Your task to perform on an android device: turn on notifications settings in the gmail app Image 0: 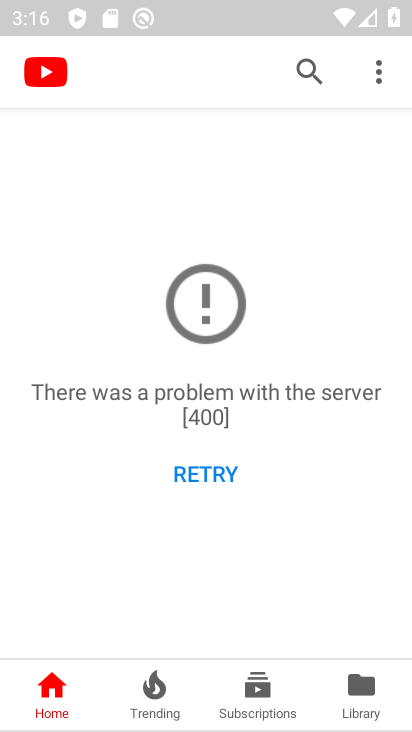
Step 0: press home button
Your task to perform on an android device: turn on notifications settings in the gmail app Image 1: 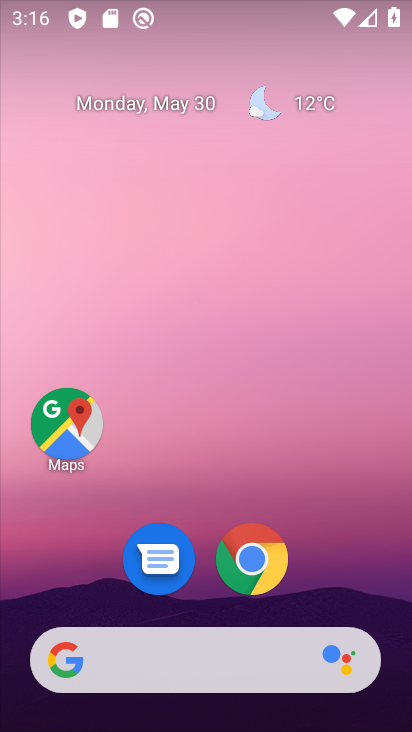
Step 1: drag from (211, 723) to (211, 29)
Your task to perform on an android device: turn on notifications settings in the gmail app Image 2: 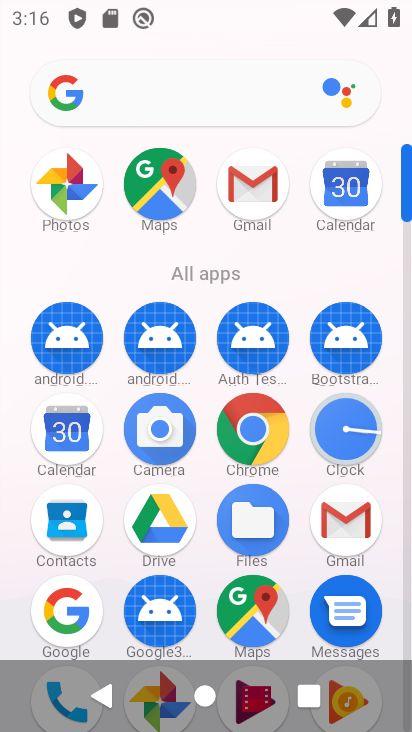
Step 2: click (360, 519)
Your task to perform on an android device: turn on notifications settings in the gmail app Image 3: 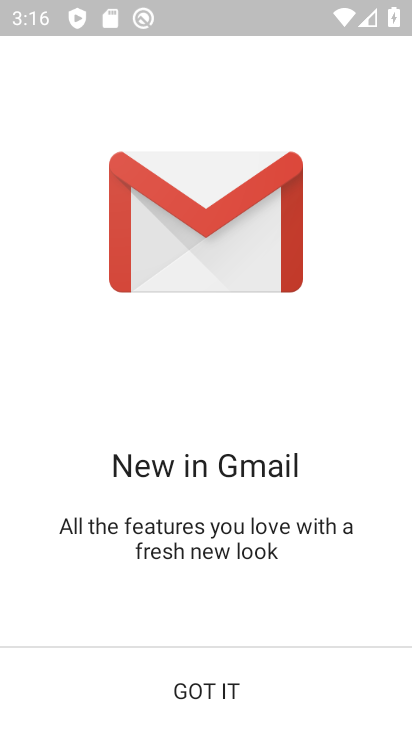
Step 3: click (217, 663)
Your task to perform on an android device: turn on notifications settings in the gmail app Image 4: 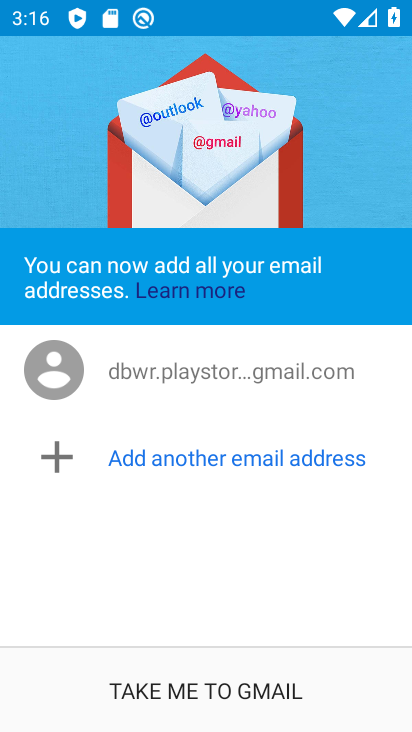
Step 4: click (210, 691)
Your task to perform on an android device: turn on notifications settings in the gmail app Image 5: 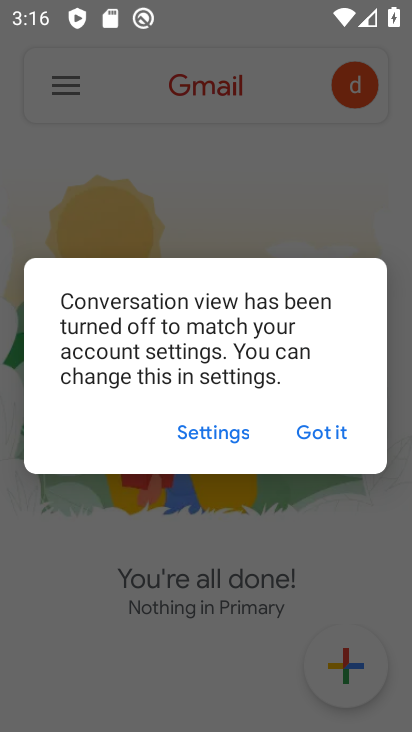
Step 5: click (317, 430)
Your task to perform on an android device: turn on notifications settings in the gmail app Image 6: 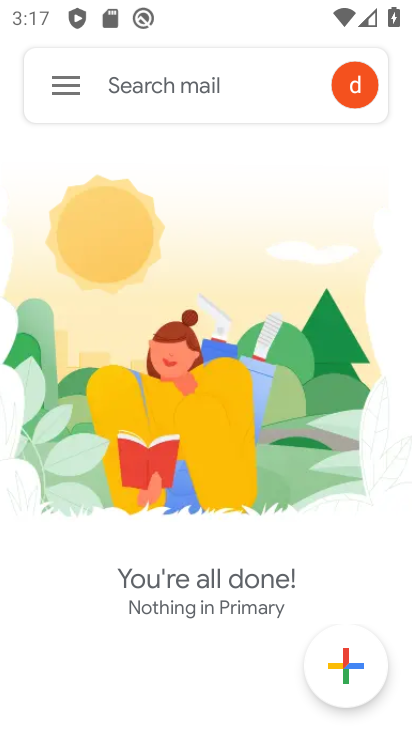
Step 6: click (61, 81)
Your task to perform on an android device: turn on notifications settings in the gmail app Image 7: 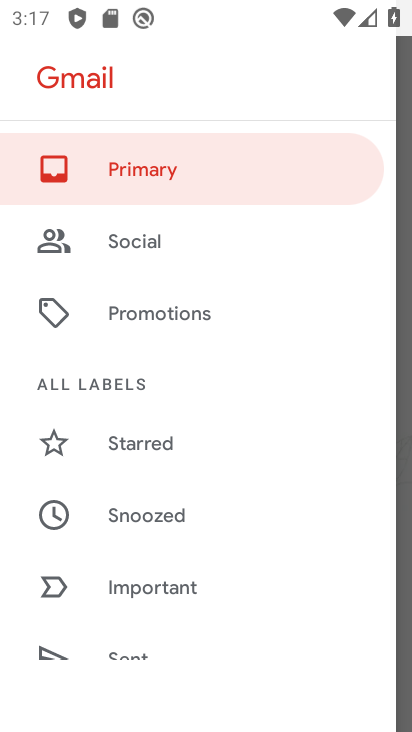
Step 7: drag from (194, 646) to (202, 277)
Your task to perform on an android device: turn on notifications settings in the gmail app Image 8: 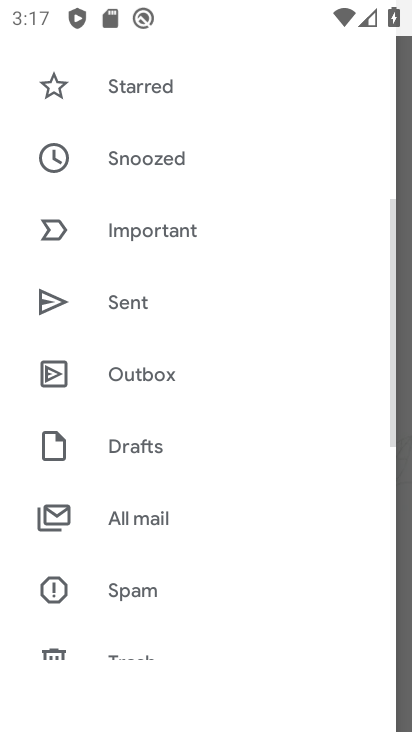
Step 8: drag from (172, 624) to (170, 154)
Your task to perform on an android device: turn on notifications settings in the gmail app Image 9: 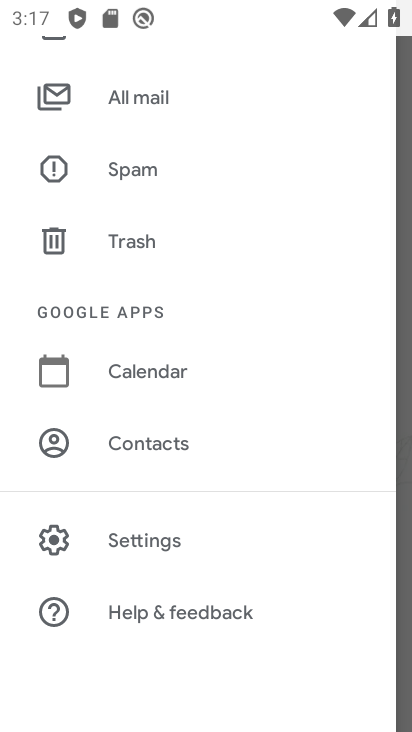
Step 9: click (154, 532)
Your task to perform on an android device: turn on notifications settings in the gmail app Image 10: 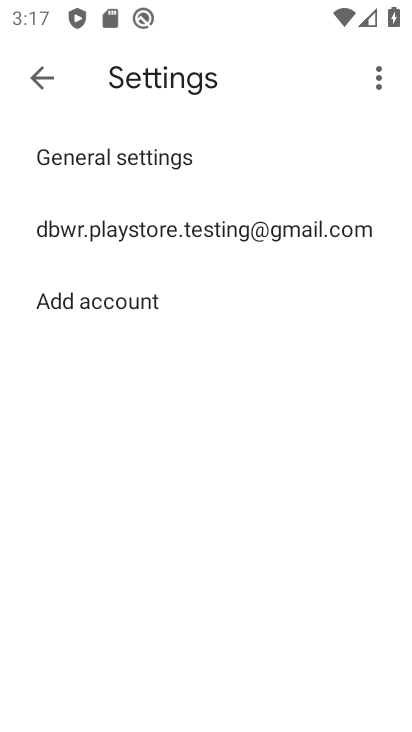
Step 10: click (183, 228)
Your task to perform on an android device: turn on notifications settings in the gmail app Image 11: 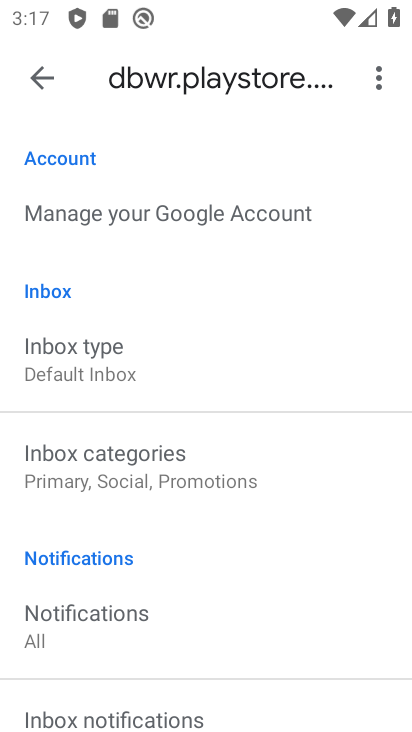
Step 11: task complete